Your task to perform on an android device: Go to Wikipedia Image 0: 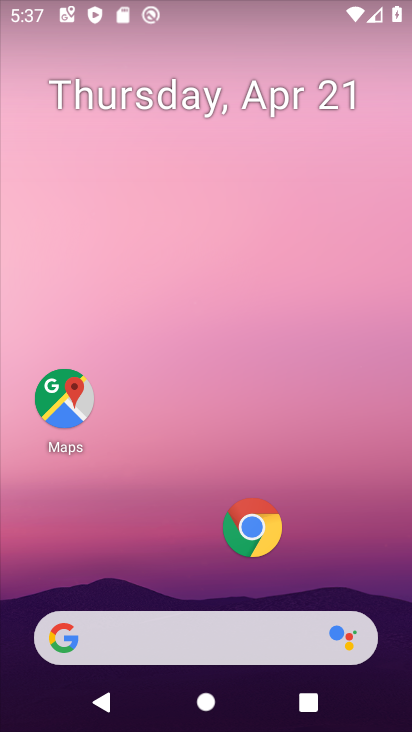
Step 0: click (264, 533)
Your task to perform on an android device: Go to Wikipedia Image 1: 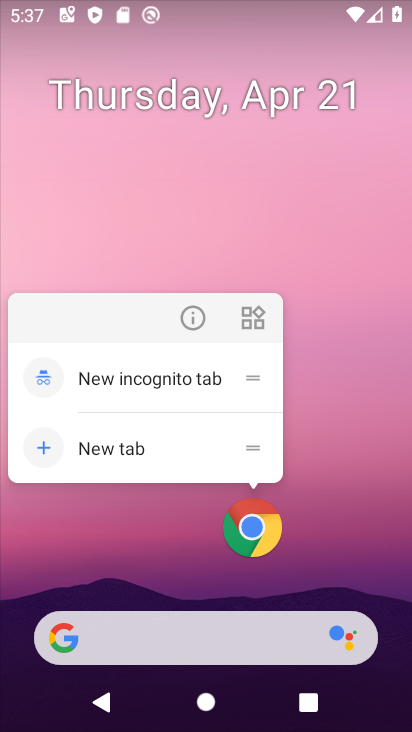
Step 1: click (226, 512)
Your task to perform on an android device: Go to Wikipedia Image 2: 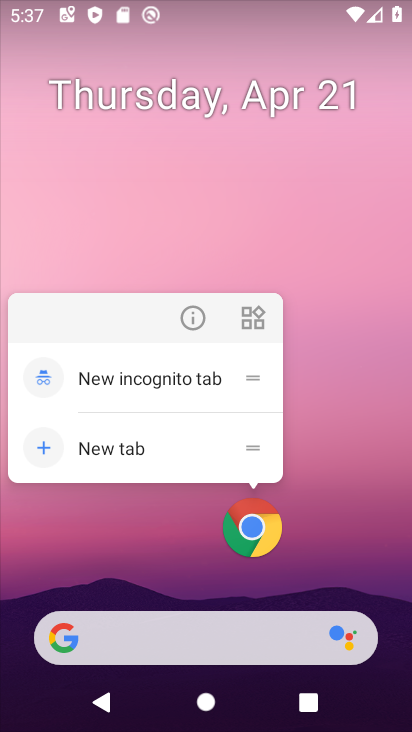
Step 2: click (249, 529)
Your task to perform on an android device: Go to Wikipedia Image 3: 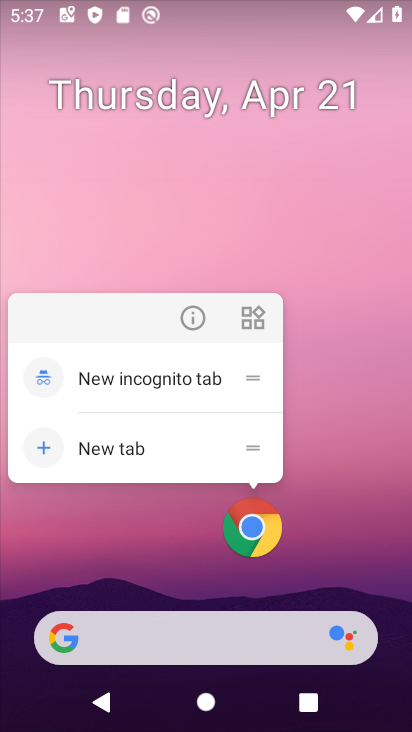
Step 3: click (253, 528)
Your task to perform on an android device: Go to Wikipedia Image 4: 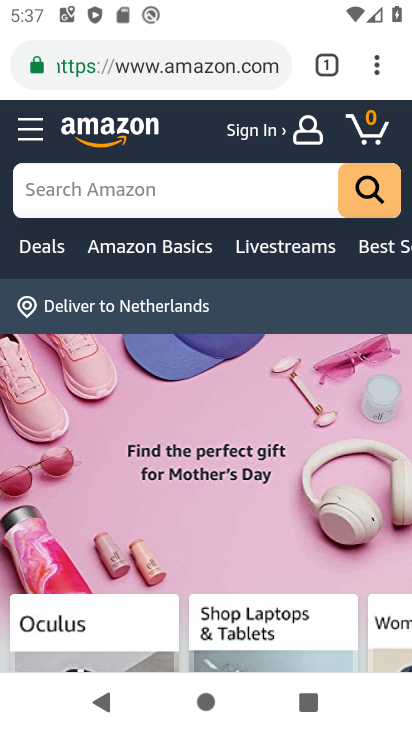
Step 4: click (328, 64)
Your task to perform on an android device: Go to Wikipedia Image 5: 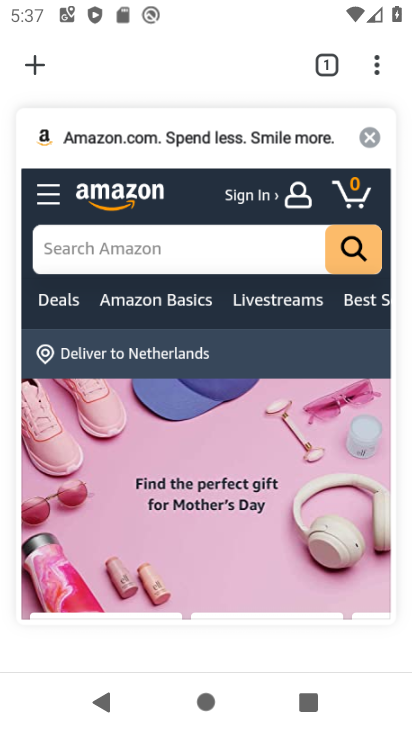
Step 5: click (39, 61)
Your task to perform on an android device: Go to Wikipedia Image 6: 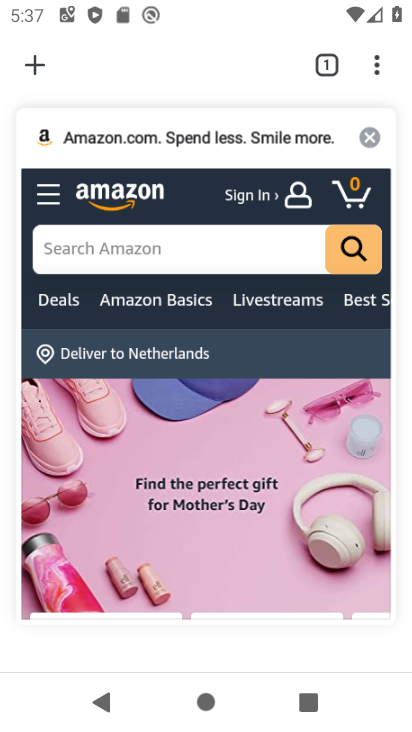
Step 6: click (31, 58)
Your task to perform on an android device: Go to Wikipedia Image 7: 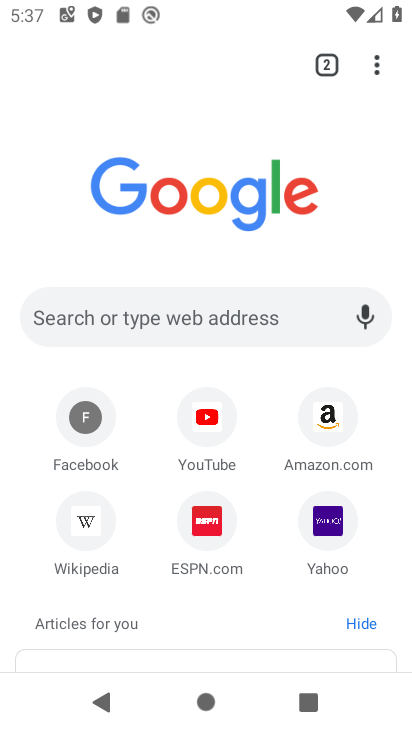
Step 7: click (69, 530)
Your task to perform on an android device: Go to Wikipedia Image 8: 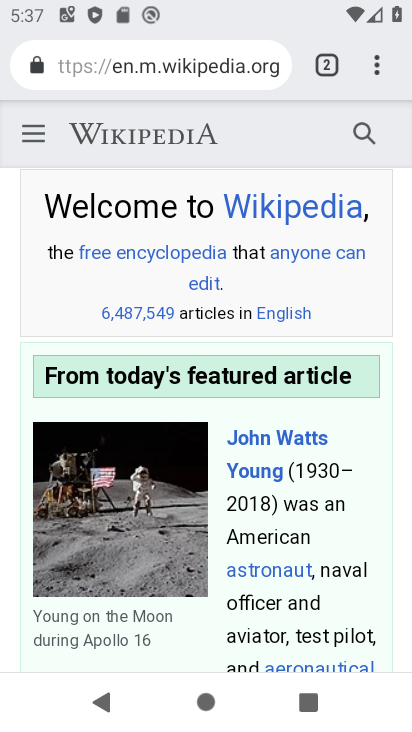
Step 8: task complete